Your task to perform on an android device: toggle notification dots Image 0: 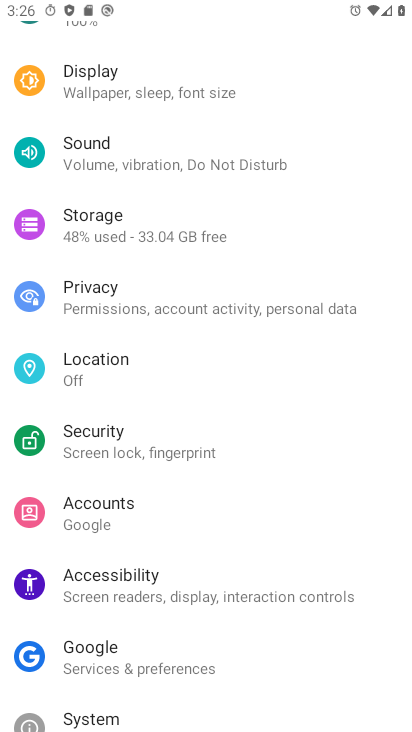
Step 0: press home button
Your task to perform on an android device: toggle notification dots Image 1: 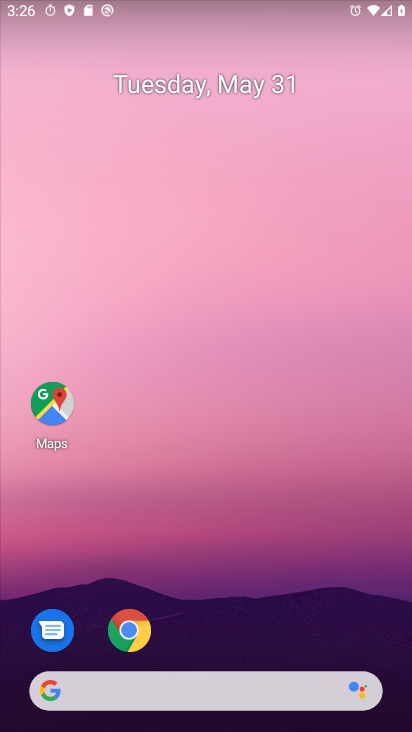
Step 1: drag from (224, 659) to (263, 30)
Your task to perform on an android device: toggle notification dots Image 2: 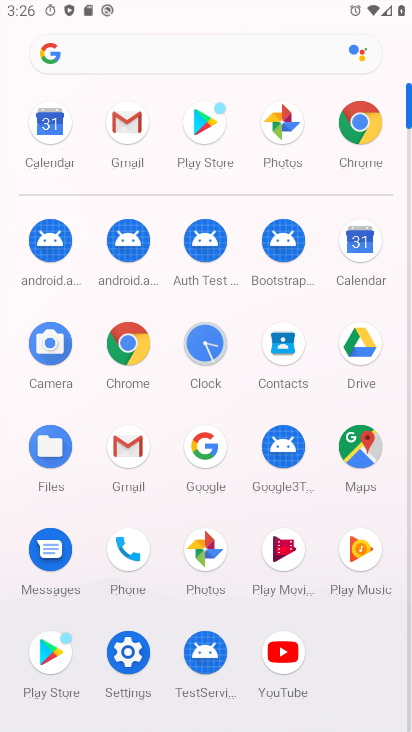
Step 2: click (119, 650)
Your task to perform on an android device: toggle notification dots Image 3: 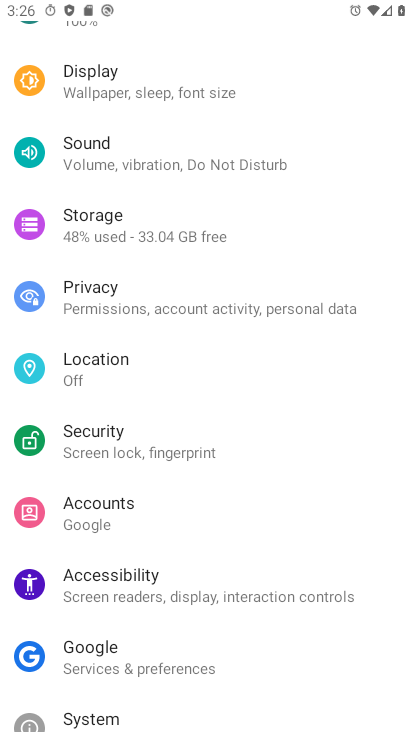
Step 3: drag from (209, 220) to (215, 699)
Your task to perform on an android device: toggle notification dots Image 4: 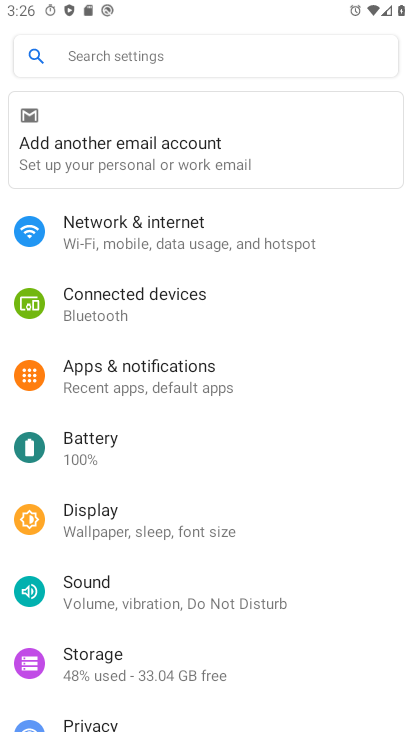
Step 4: click (189, 375)
Your task to perform on an android device: toggle notification dots Image 5: 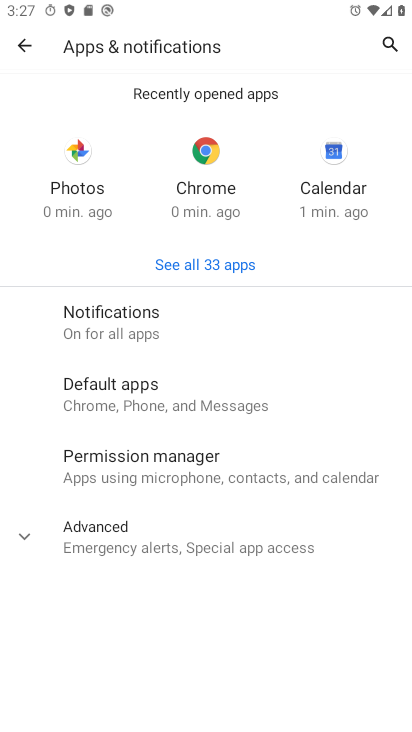
Step 5: click (158, 331)
Your task to perform on an android device: toggle notification dots Image 6: 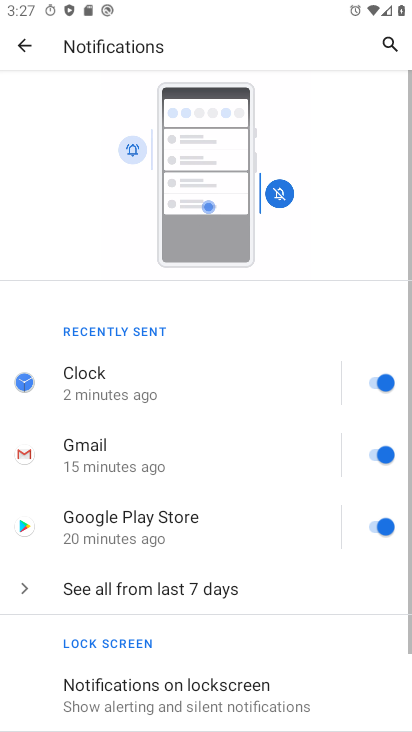
Step 6: drag from (229, 694) to (270, 170)
Your task to perform on an android device: toggle notification dots Image 7: 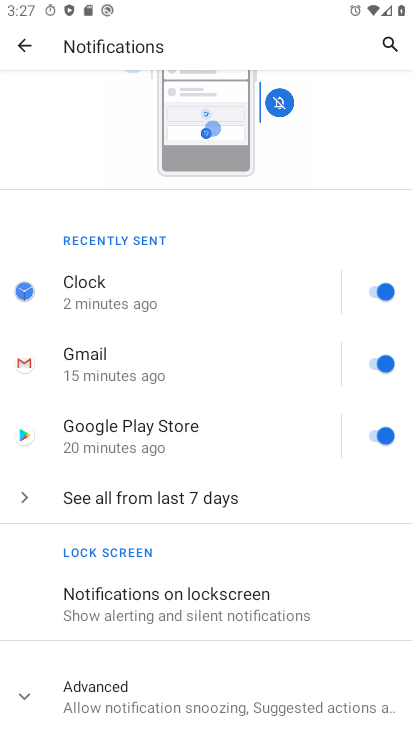
Step 7: click (286, 691)
Your task to perform on an android device: toggle notification dots Image 8: 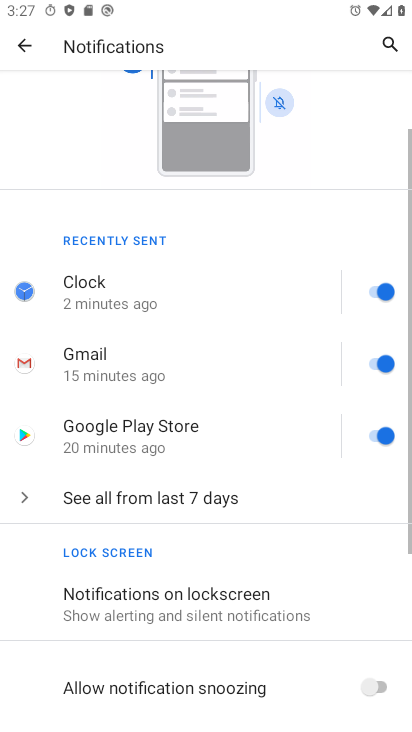
Step 8: task complete